Your task to perform on an android device: turn notification dots on Image 0: 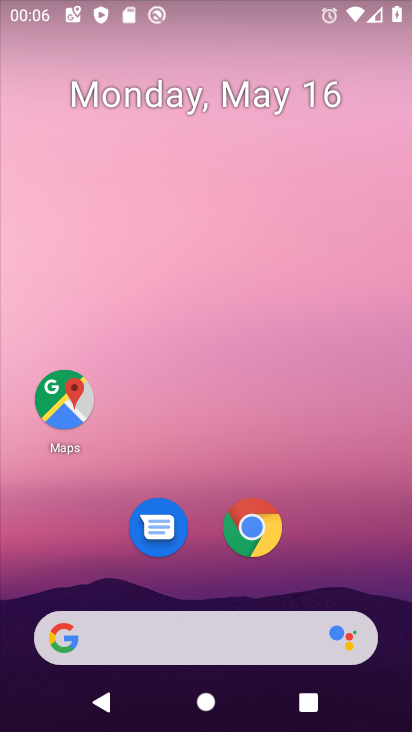
Step 0: drag from (359, 533) to (268, 163)
Your task to perform on an android device: turn notification dots on Image 1: 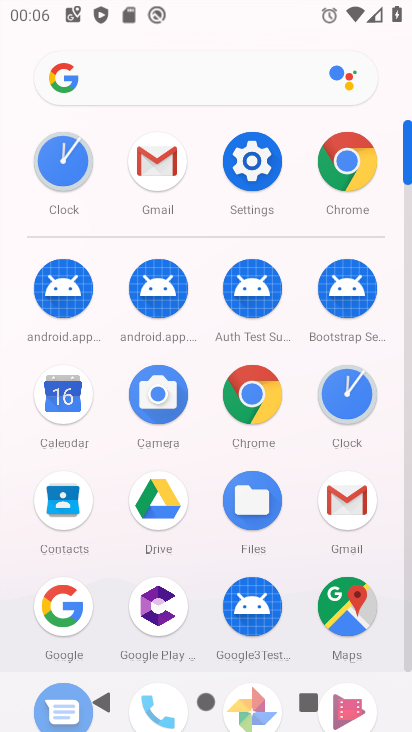
Step 1: click (268, 163)
Your task to perform on an android device: turn notification dots on Image 2: 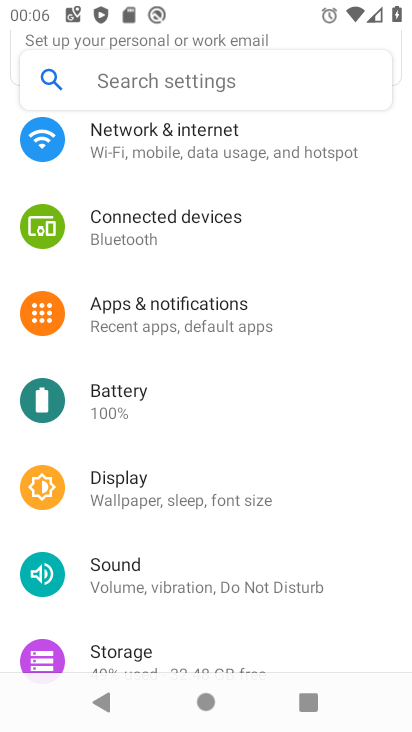
Step 2: click (174, 299)
Your task to perform on an android device: turn notification dots on Image 3: 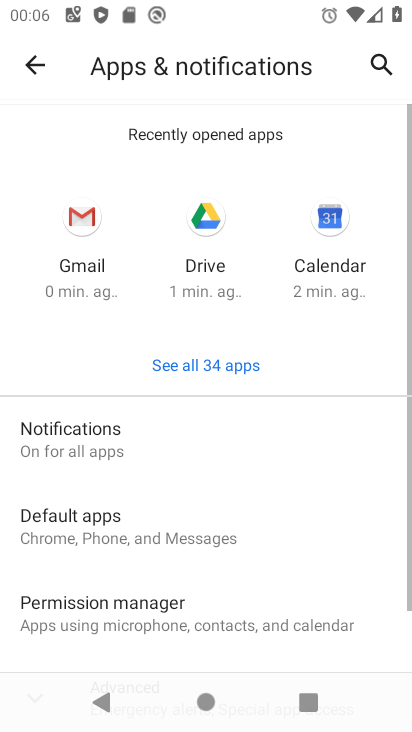
Step 3: drag from (199, 545) to (176, 426)
Your task to perform on an android device: turn notification dots on Image 4: 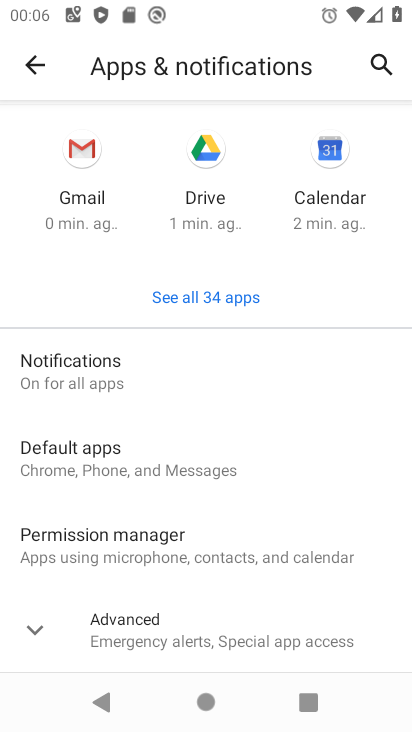
Step 4: click (143, 379)
Your task to perform on an android device: turn notification dots on Image 5: 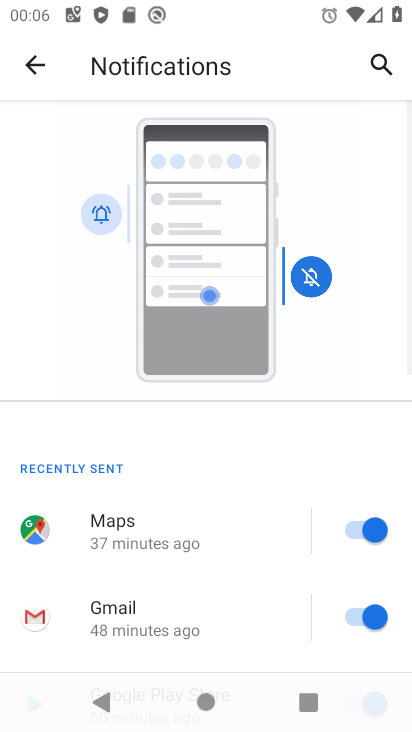
Step 5: drag from (191, 595) to (150, 264)
Your task to perform on an android device: turn notification dots on Image 6: 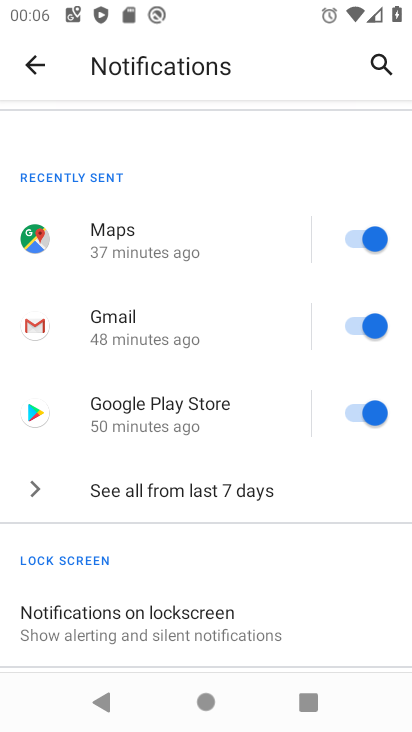
Step 6: drag from (193, 519) to (173, 301)
Your task to perform on an android device: turn notification dots on Image 7: 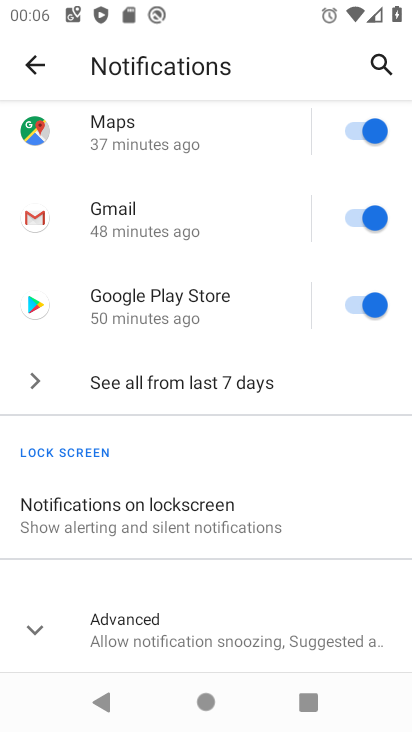
Step 7: click (265, 639)
Your task to perform on an android device: turn notification dots on Image 8: 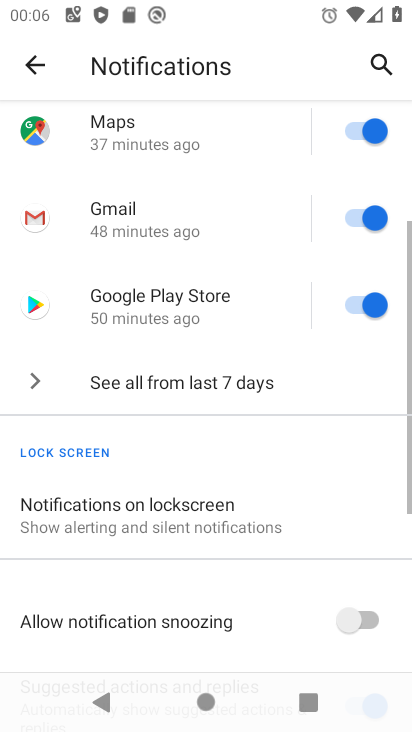
Step 8: task complete